Your task to perform on an android device: Go to CNN.com Image 0: 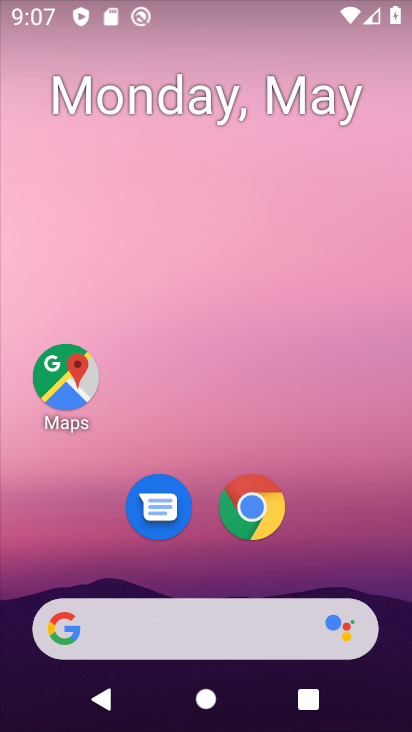
Step 0: drag from (192, 645) to (158, 73)
Your task to perform on an android device: Go to CNN.com Image 1: 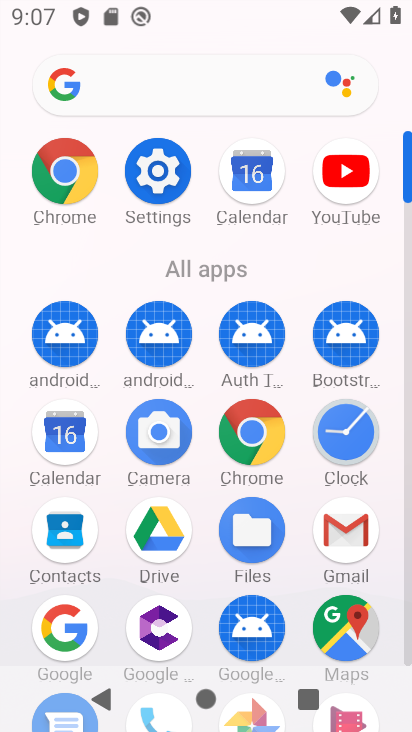
Step 1: click (249, 437)
Your task to perform on an android device: Go to CNN.com Image 2: 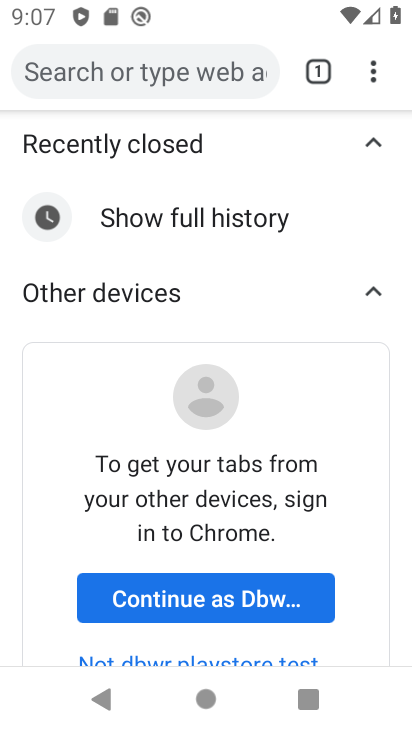
Step 2: click (210, 78)
Your task to perform on an android device: Go to CNN.com Image 3: 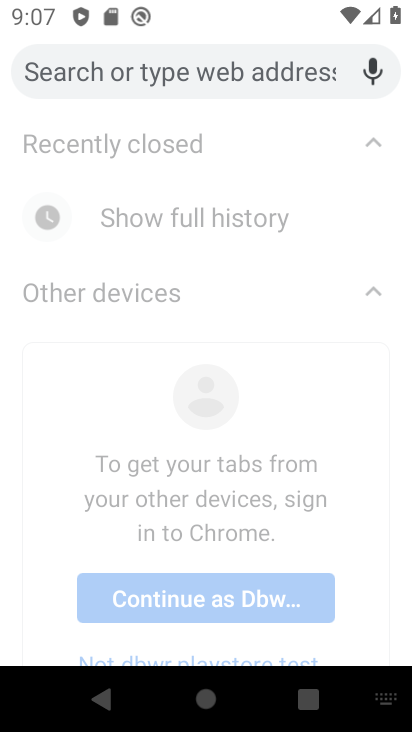
Step 3: type ""
Your task to perform on an android device: Go to CNN.com Image 4: 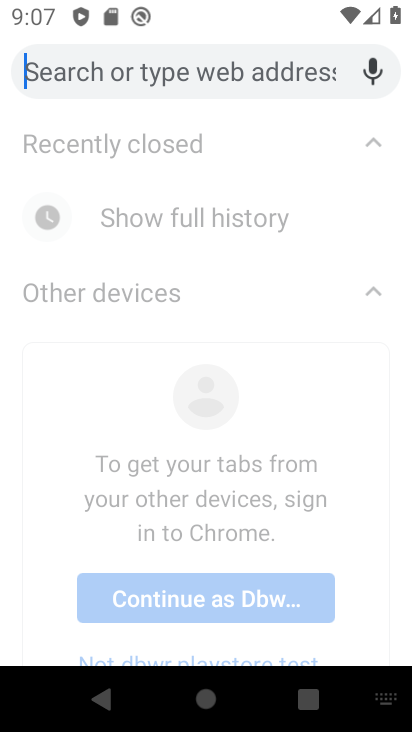
Step 4: type "cnn.com"
Your task to perform on an android device: Go to CNN.com Image 5: 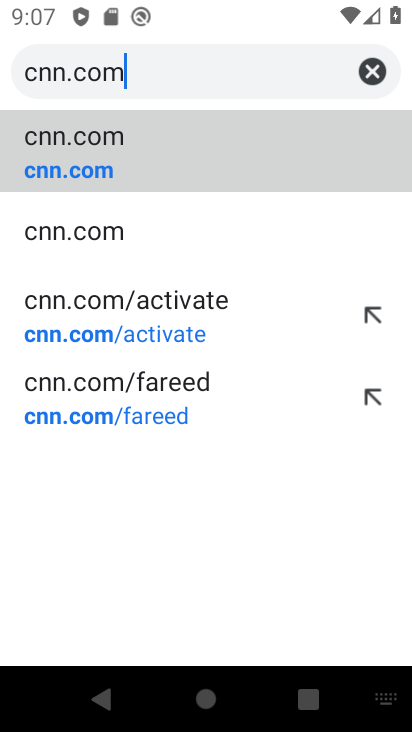
Step 5: click (72, 178)
Your task to perform on an android device: Go to CNN.com Image 6: 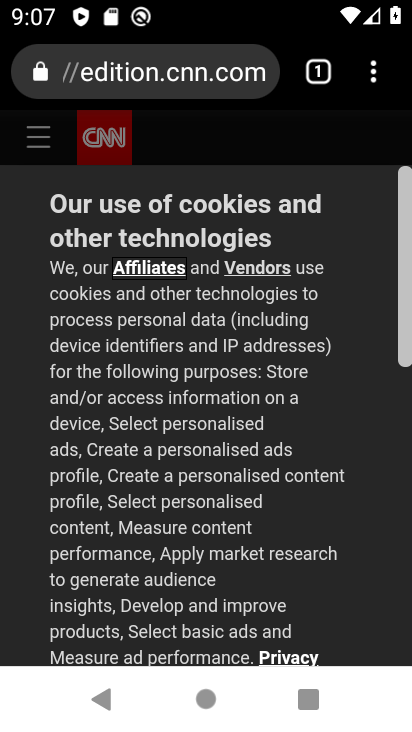
Step 6: task complete